Your task to perform on an android device: check google app version Image 0: 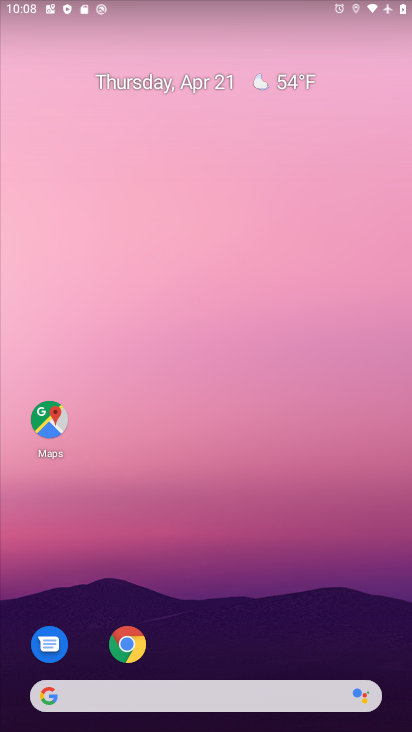
Step 0: drag from (183, 555) to (106, 107)
Your task to perform on an android device: check google app version Image 1: 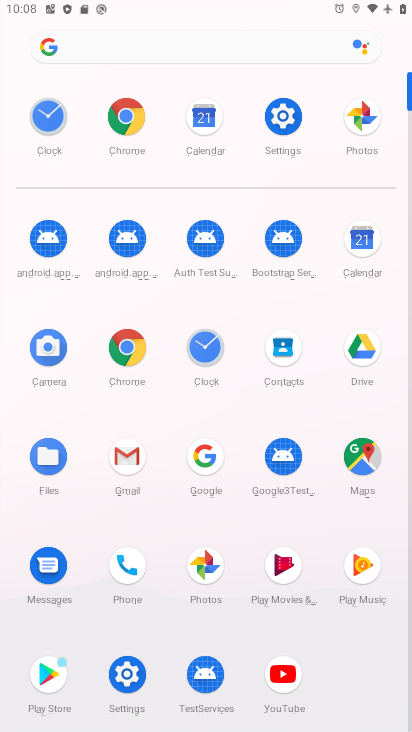
Step 1: click (198, 449)
Your task to perform on an android device: check google app version Image 2: 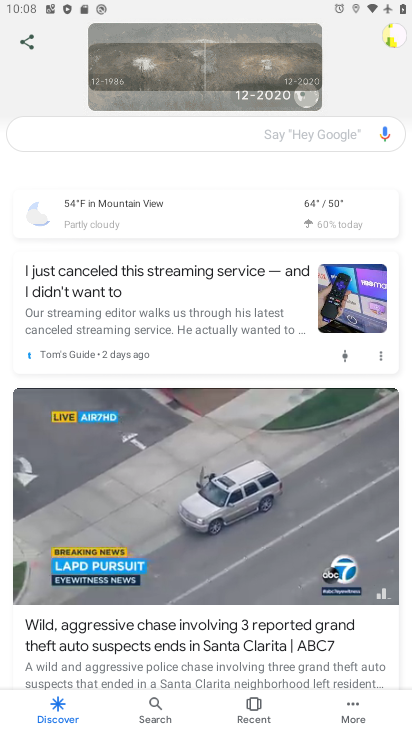
Step 2: click (345, 703)
Your task to perform on an android device: check google app version Image 3: 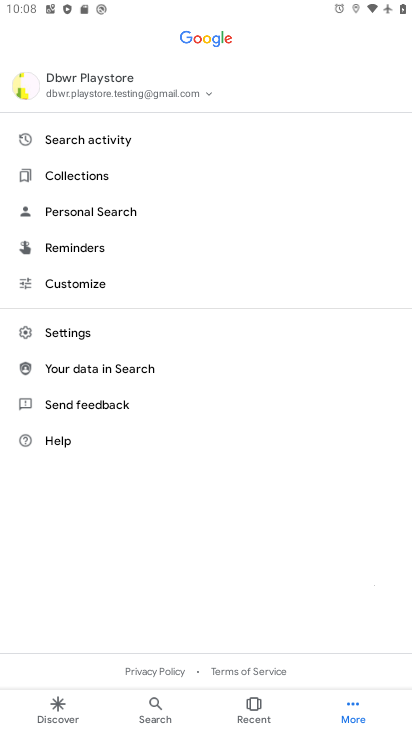
Step 3: click (66, 329)
Your task to perform on an android device: check google app version Image 4: 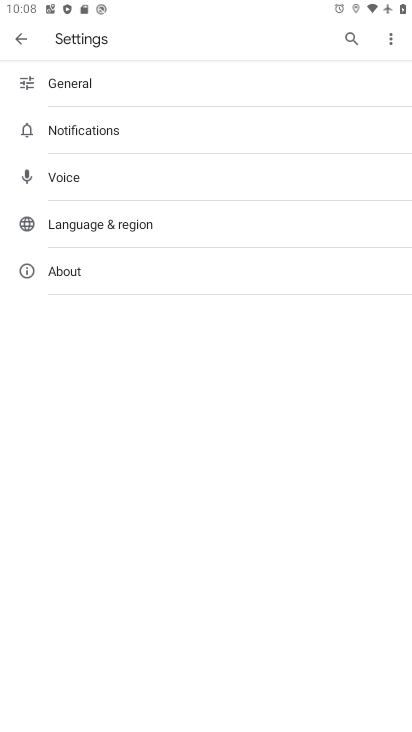
Step 4: click (61, 270)
Your task to perform on an android device: check google app version Image 5: 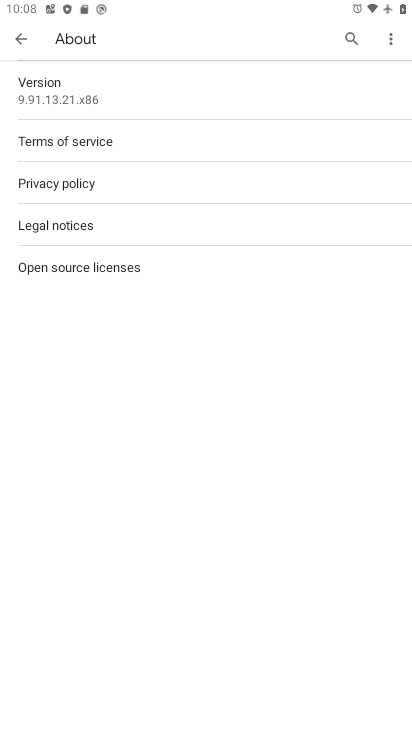
Step 5: task complete